Your task to perform on an android device: turn off improve location accuracy Image 0: 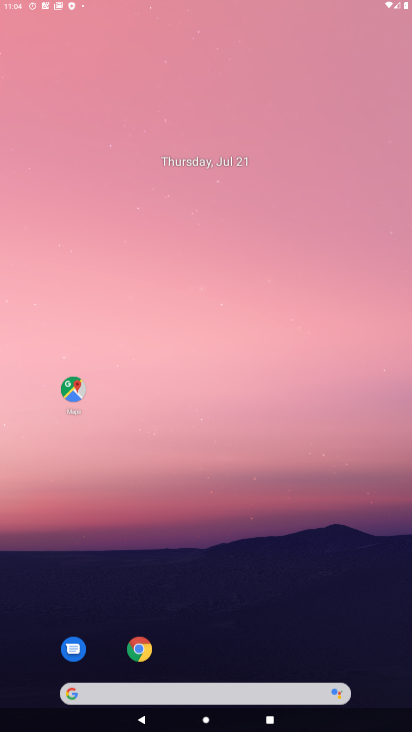
Step 0: click (233, 689)
Your task to perform on an android device: turn off improve location accuracy Image 1: 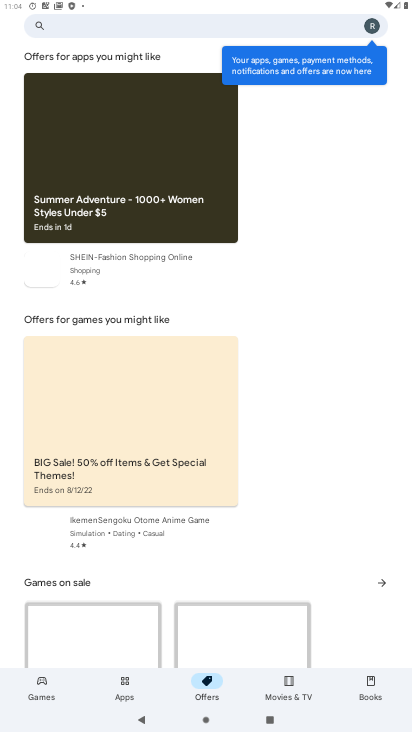
Step 1: press home button
Your task to perform on an android device: turn off improve location accuracy Image 2: 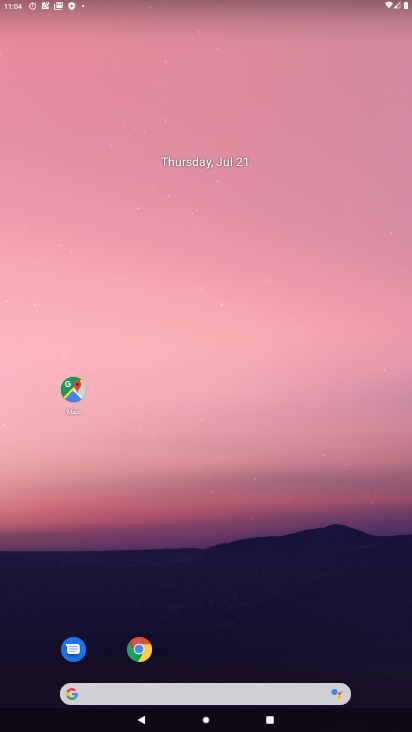
Step 2: drag from (276, 622) to (285, 11)
Your task to perform on an android device: turn off improve location accuracy Image 3: 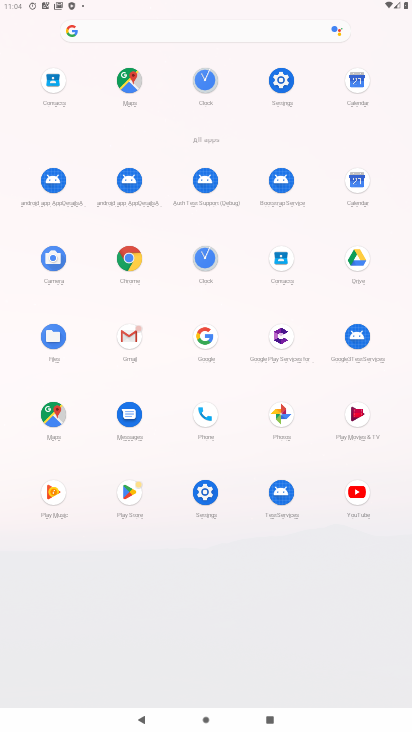
Step 3: click (279, 74)
Your task to perform on an android device: turn off improve location accuracy Image 4: 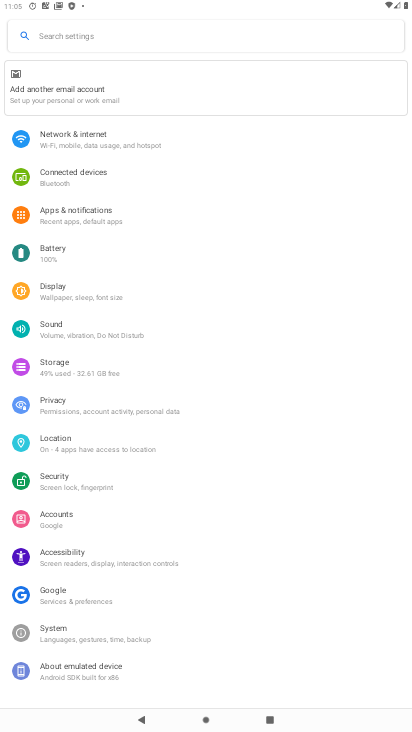
Step 4: click (99, 446)
Your task to perform on an android device: turn off improve location accuracy Image 5: 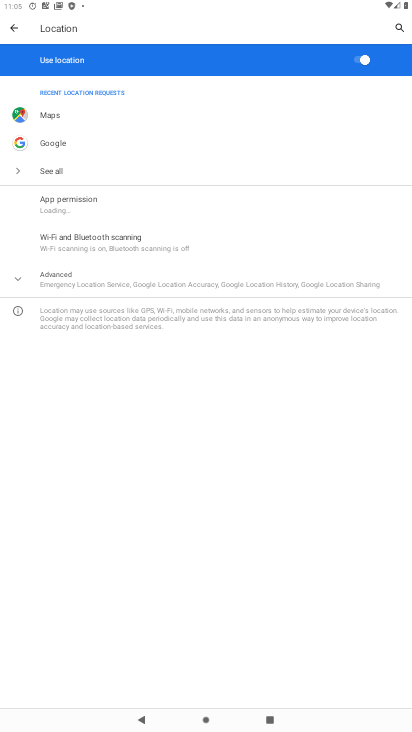
Step 5: click (194, 273)
Your task to perform on an android device: turn off improve location accuracy Image 6: 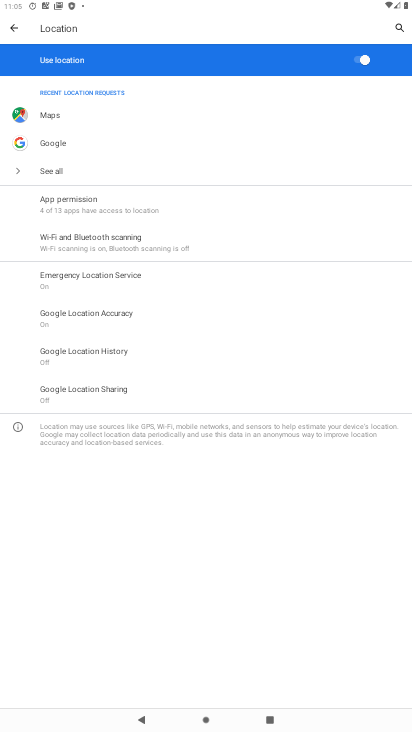
Step 6: click (120, 320)
Your task to perform on an android device: turn off improve location accuracy Image 7: 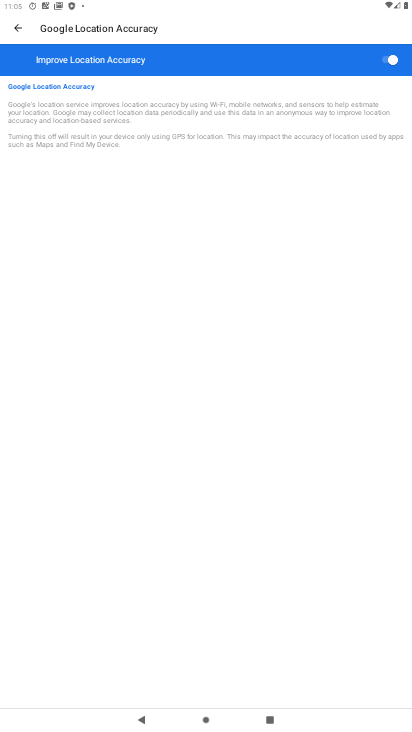
Step 7: click (387, 45)
Your task to perform on an android device: turn off improve location accuracy Image 8: 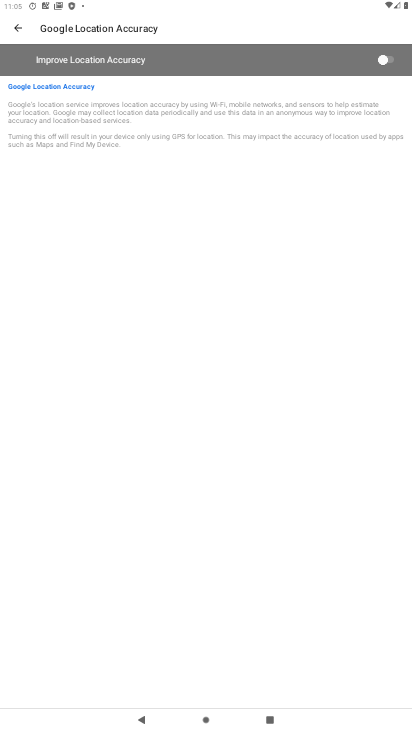
Step 8: task complete